Your task to perform on an android device: delete the emails in spam in the gmail app Image 0: 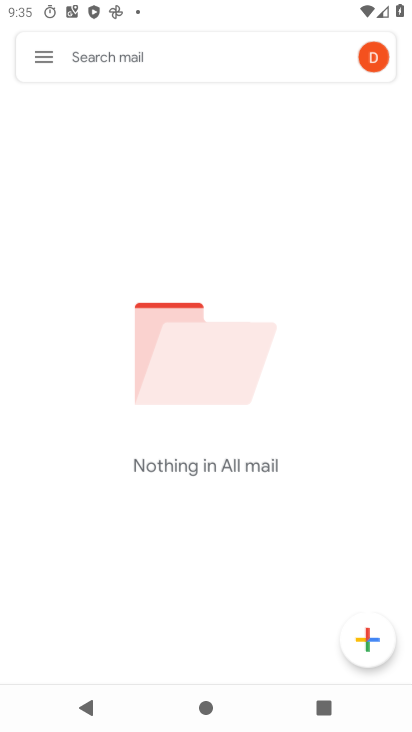
Step 0: drag from (245, 664) to (271, 267)
Your task to perform on an android device: delete the emails in spam in the gmail app Image 1: 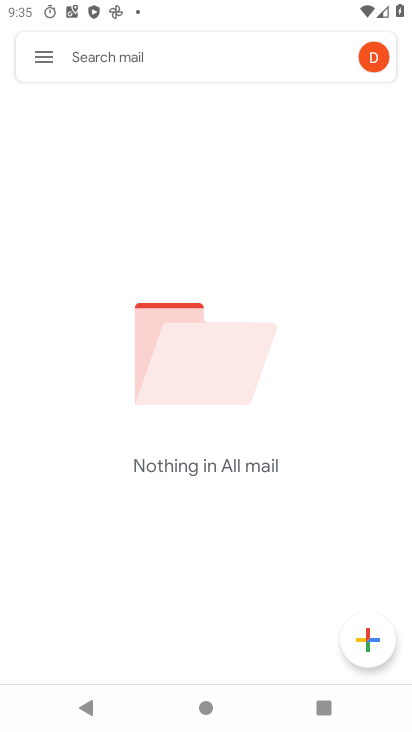
Step 1: press home button
Your task to perform on an android device: delete the emails in spam in the gmail app Image 2: 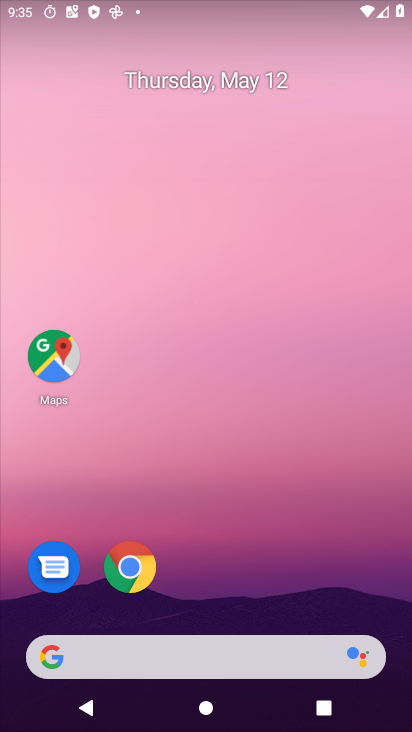
Step 2: drag from (199, 655) to (272, 242)
Your task to perform on an android device: delete the emails in spam in the gmail app Image 3: 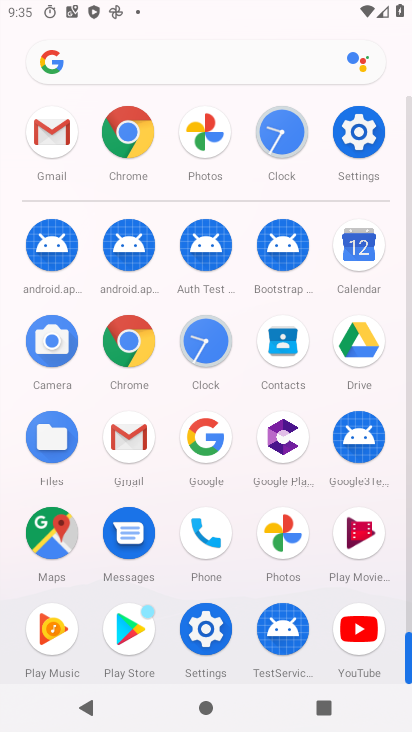
Step 3: click (138, 454)
Your task to perform on an android device: delete the emails in spam in the gmail app Image 4: 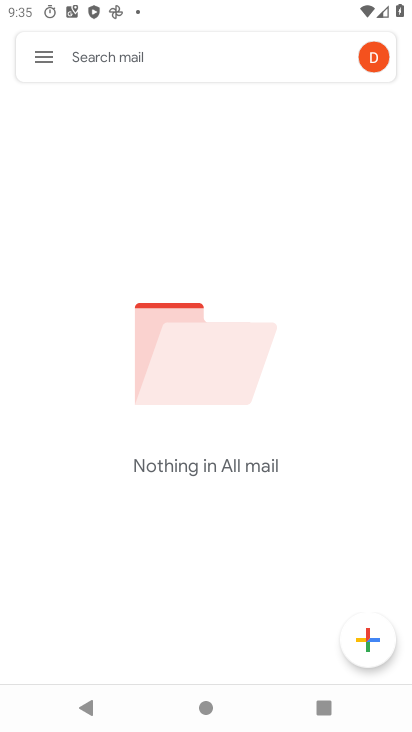
Step 4: click (40, 64)
Your task to perform on an android device: delete the emails in spam in the gmail app Image 5: 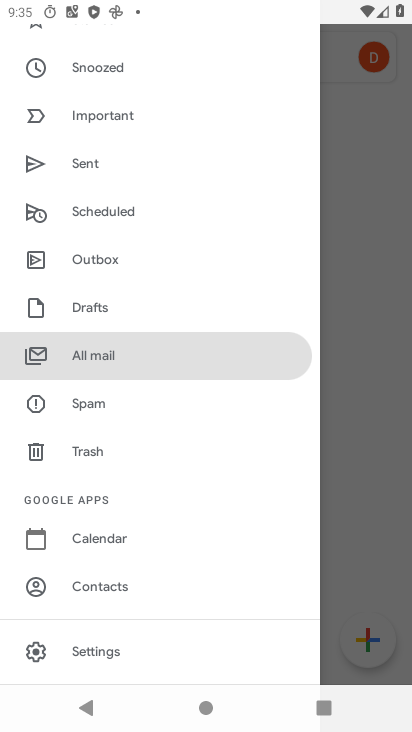
Step 5: click (105, 370)
Your task to perform on an android device: delete the emails in spam in the gmail app Image 6: 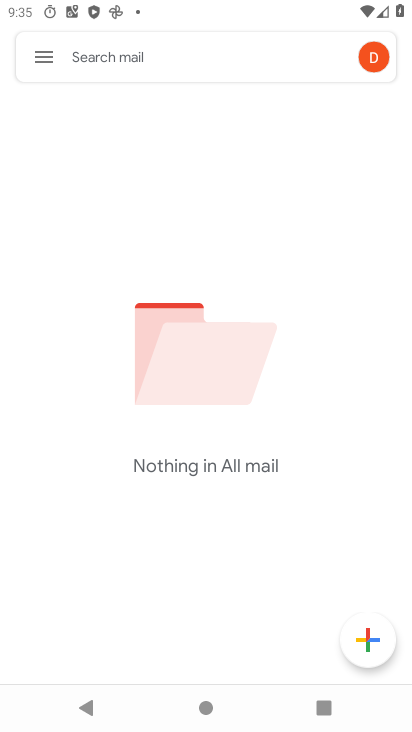
Step 6: task complete